Your task to perform on an android device: Open the calendar app, open the side menu, and click the "Day" option Image 0: 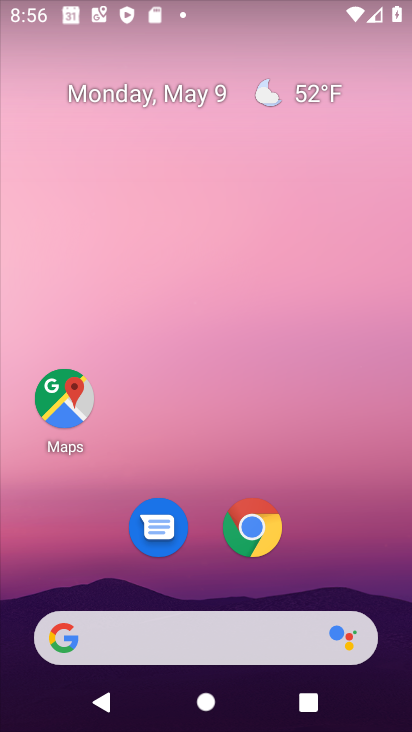
Step 0: drag from (190, 441) to (190, 5)
Your task to perform on an android device: Open the calendar app, open the side menu, and click the "Day" option Image 1: 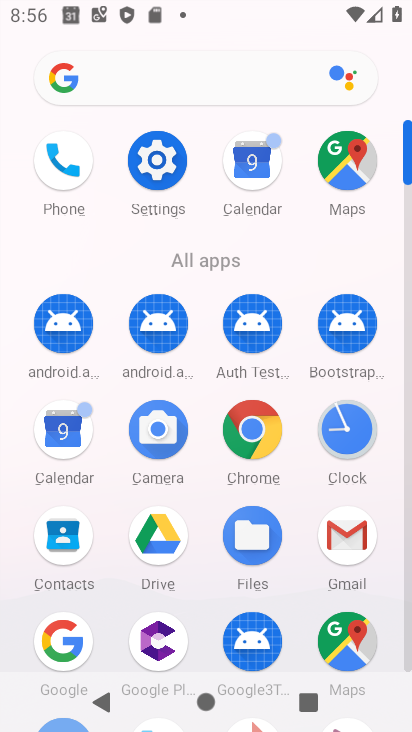
Step 1: click (69, 430)
Your task to perform on an android device: Open the calendar app, open the side menu, and click the "Day" option Image 2: 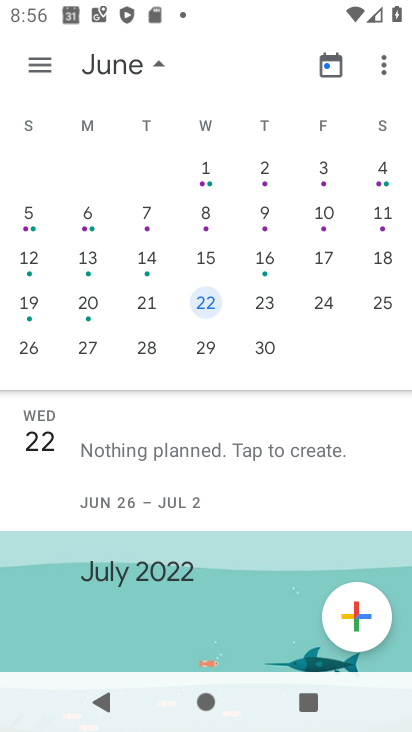
Step 2: drag from (47, 362) to (411, 319)
Your task to perform on an android device: Open the calendar app, open the side menu, and click the "Day" option Image 3: 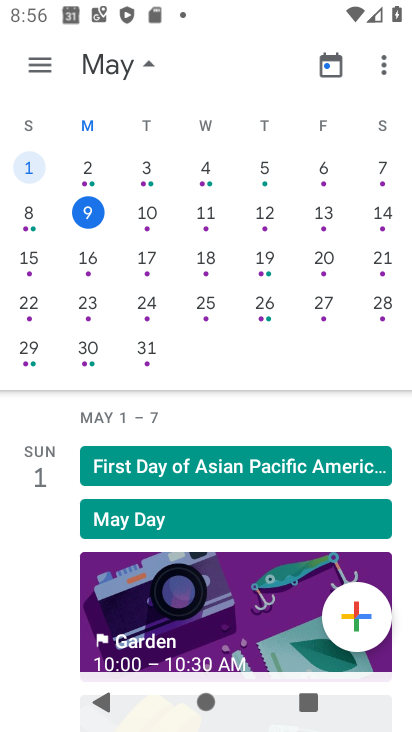
Step 3: click (41, 67)
Your task to perform on an android device: Open the calendar app, open the side menu, and click the "Day" option Image 4: 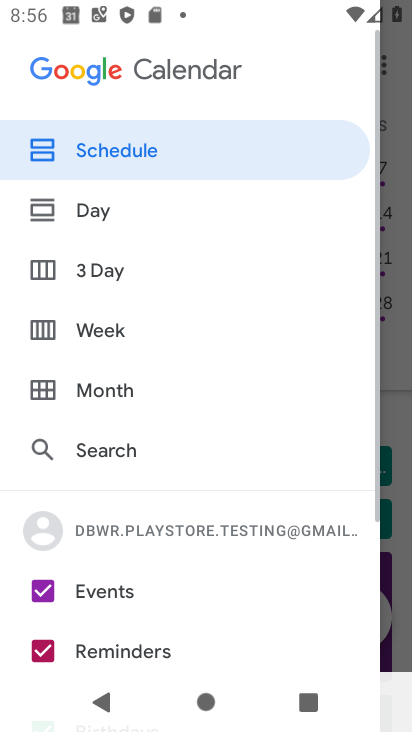
Step 4: click (103, 221)
Your task to perform on an android device: Open the calendar app, open the side menu, and click the "Day" option Image 5: 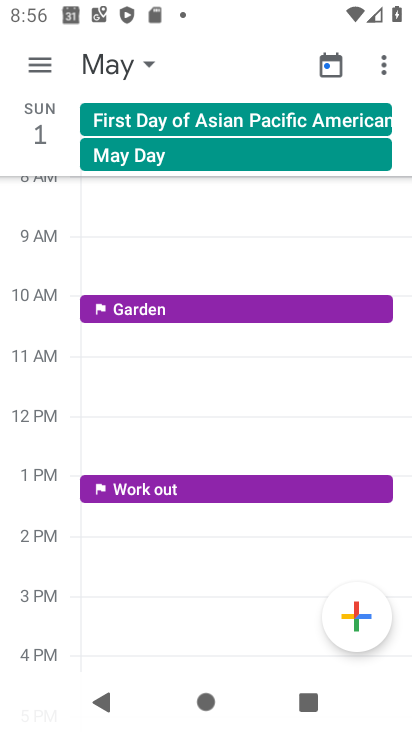
Step 5: task complete